Your task to perform on an android device: Add usb-a to usb-b to the cart on newegg.com, then select checkout. Image 0: 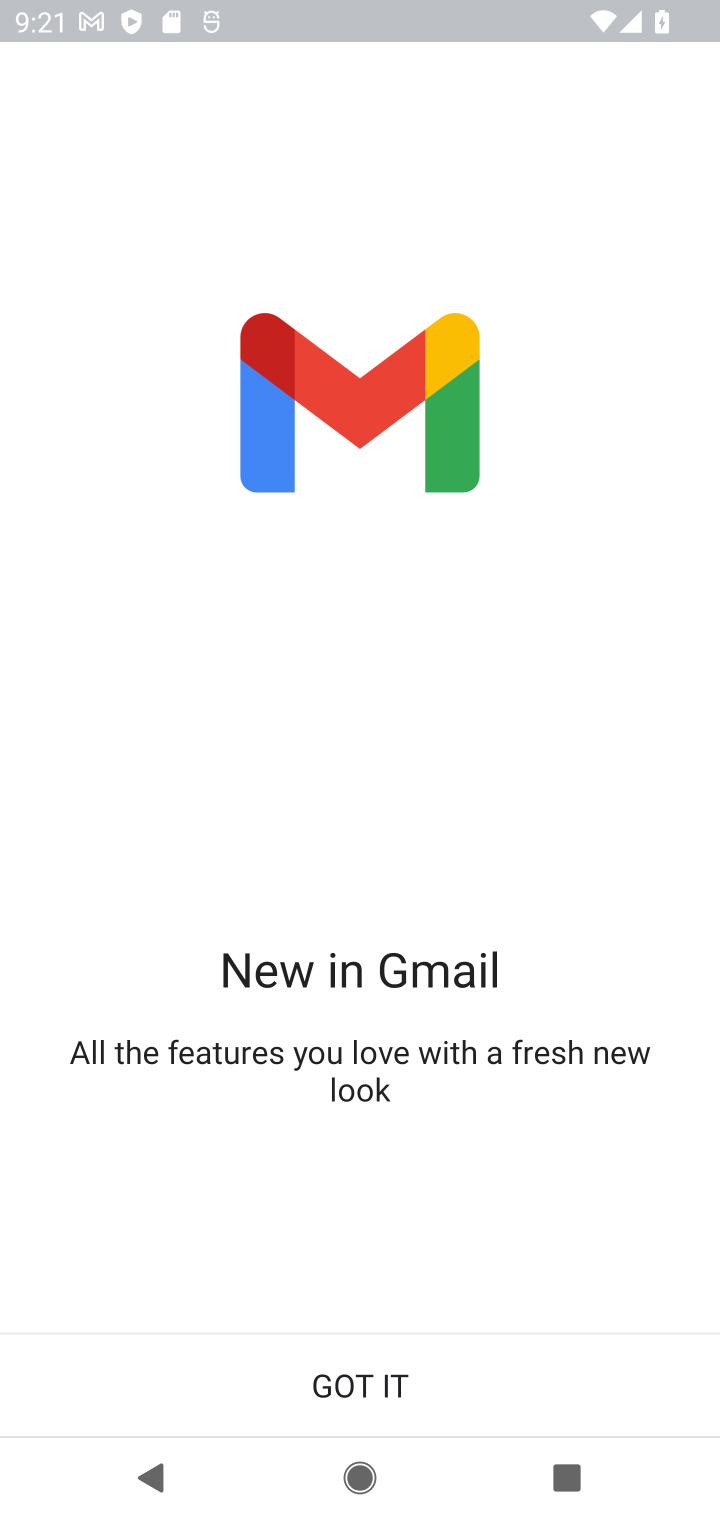
Step 0: click (356, 1412)
Your task to perform on an android device: Add usb-a to usb-b to the cart on newegg.com, then select checkout. Image 1: 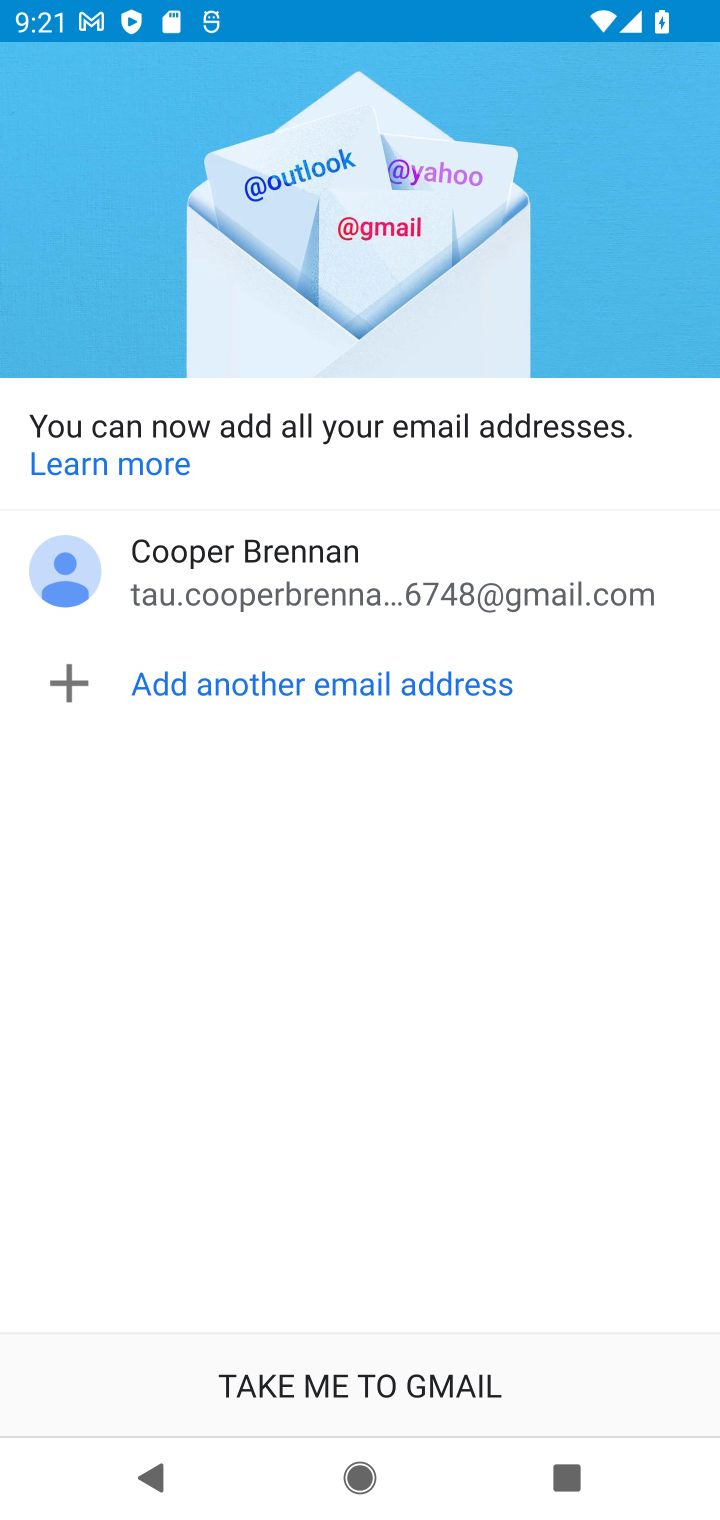
Step 1: press home button
Your task to perform on an android device: Add usb-a to usb-b to the cart on newegg.com, then select checkout. Image 2: 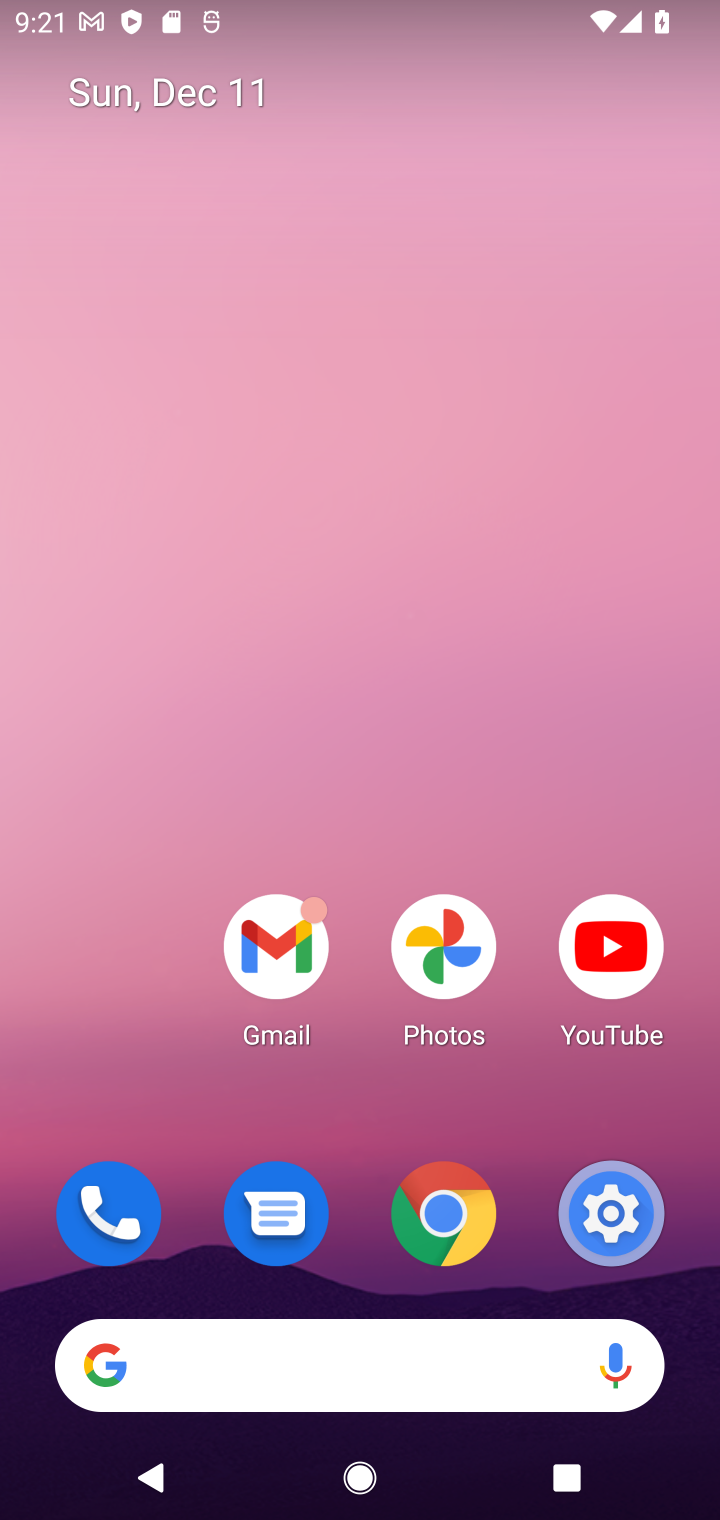
Step 2: click (423, 1365)
Your task to perform on an android device: Add usb-a to usb-b to the cart on newegg.com, then select checkout. Image 3: 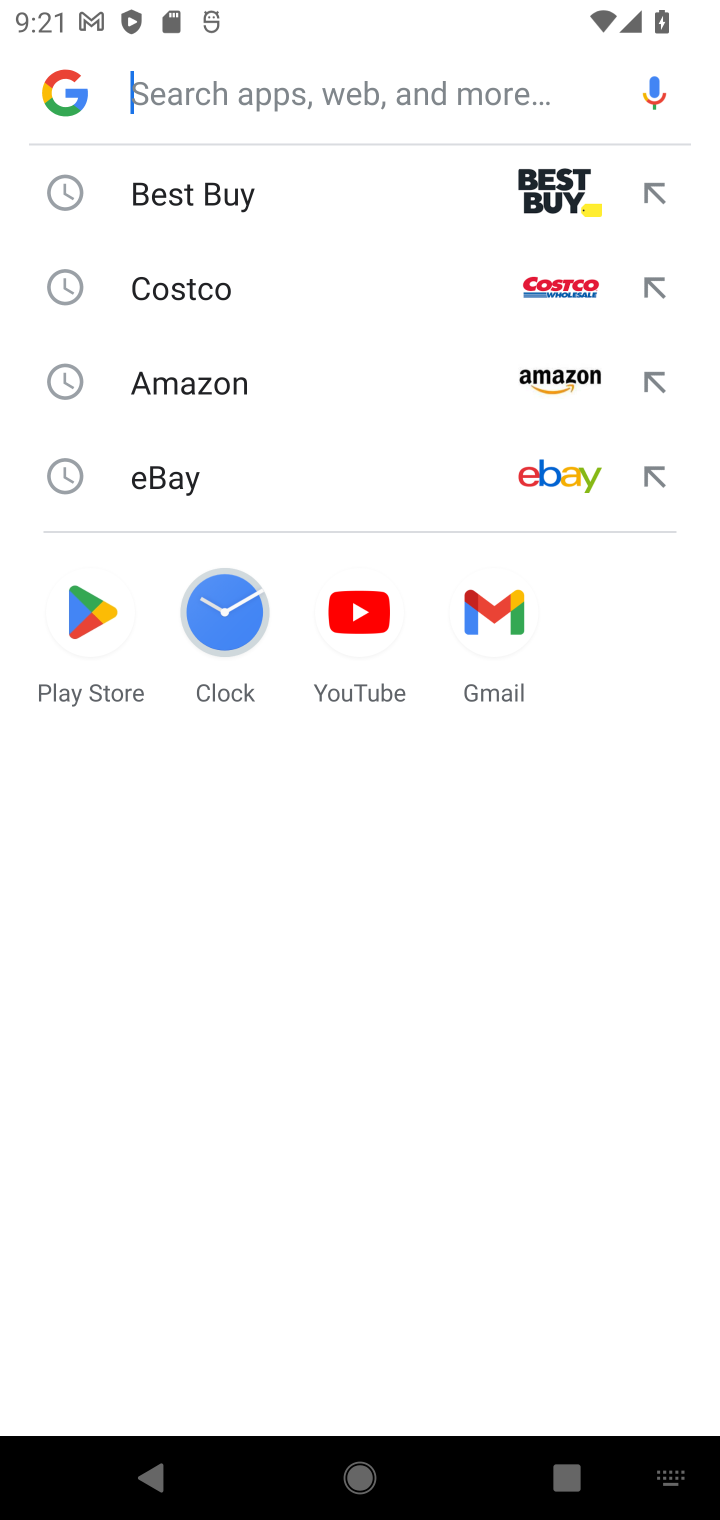
Step 3: type "newegg"
Your task to perform on an android device: Add usb-a to usb-b to the cart on newegg.com, then select checkout. Image 4: 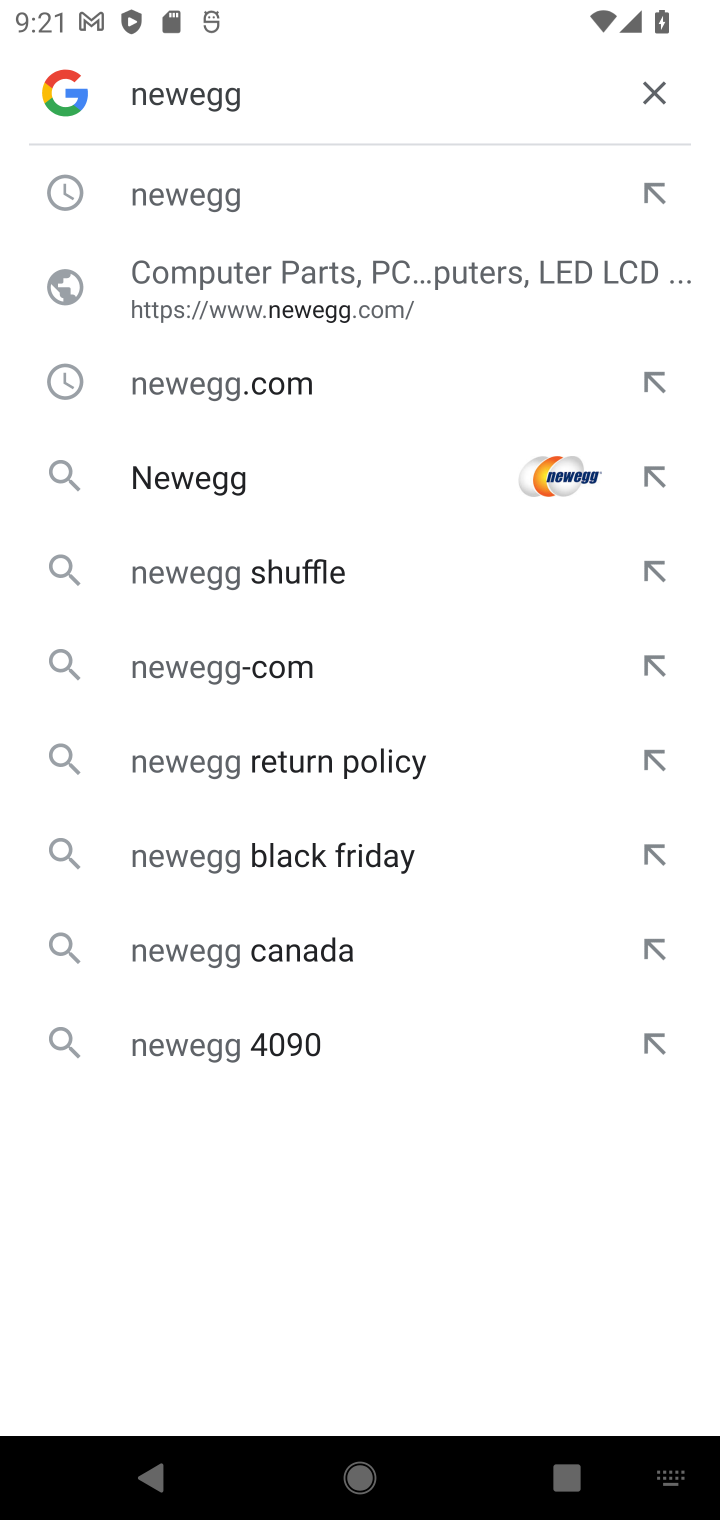
Step 4: click (318, 319)
Your task to perform on an android device: Add usb-a to usb-b to the cart on newegg.com, then select checkout. Image 5: 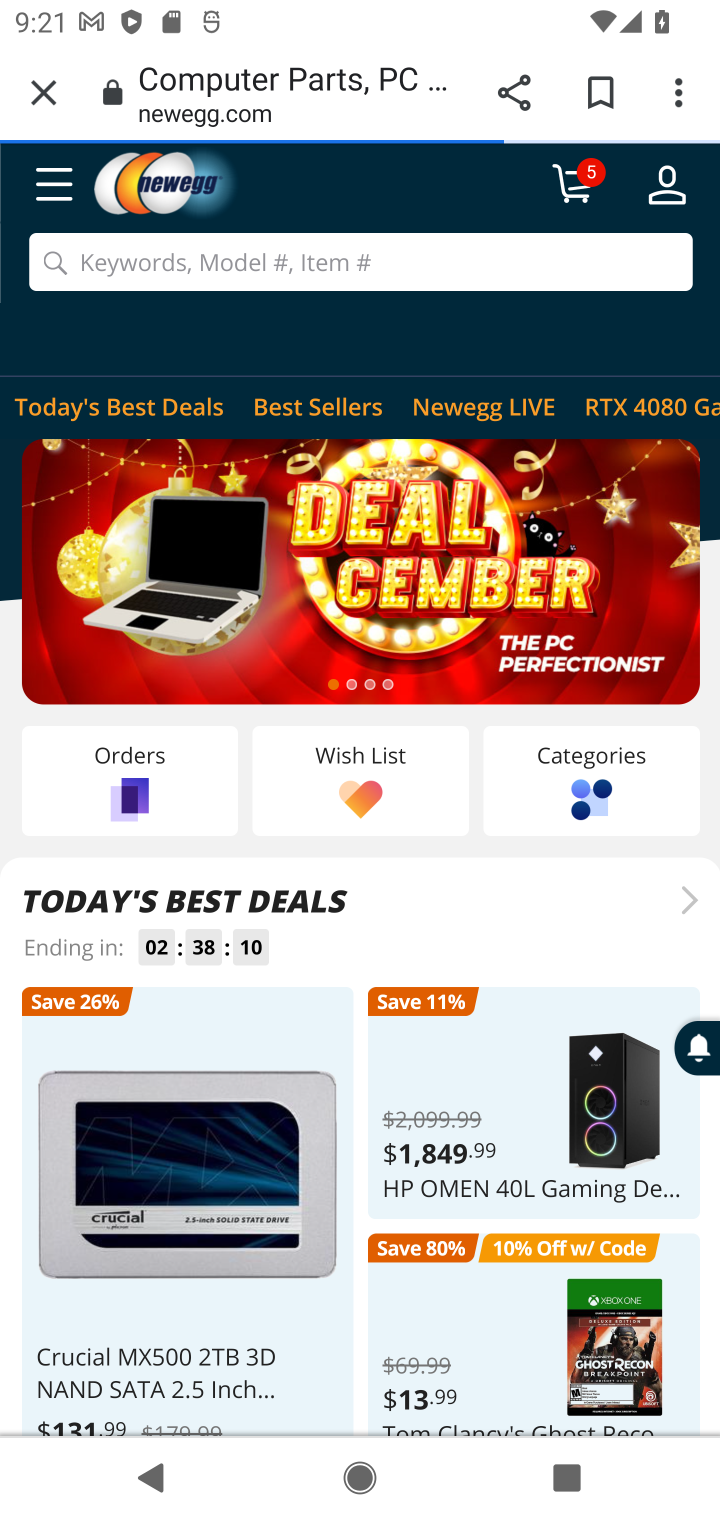
Step 5: click (311, 286)
Your task to perform on an android device: Add usb-a to usb-b to the cart on newegg.com, then select checkout. Image 6: 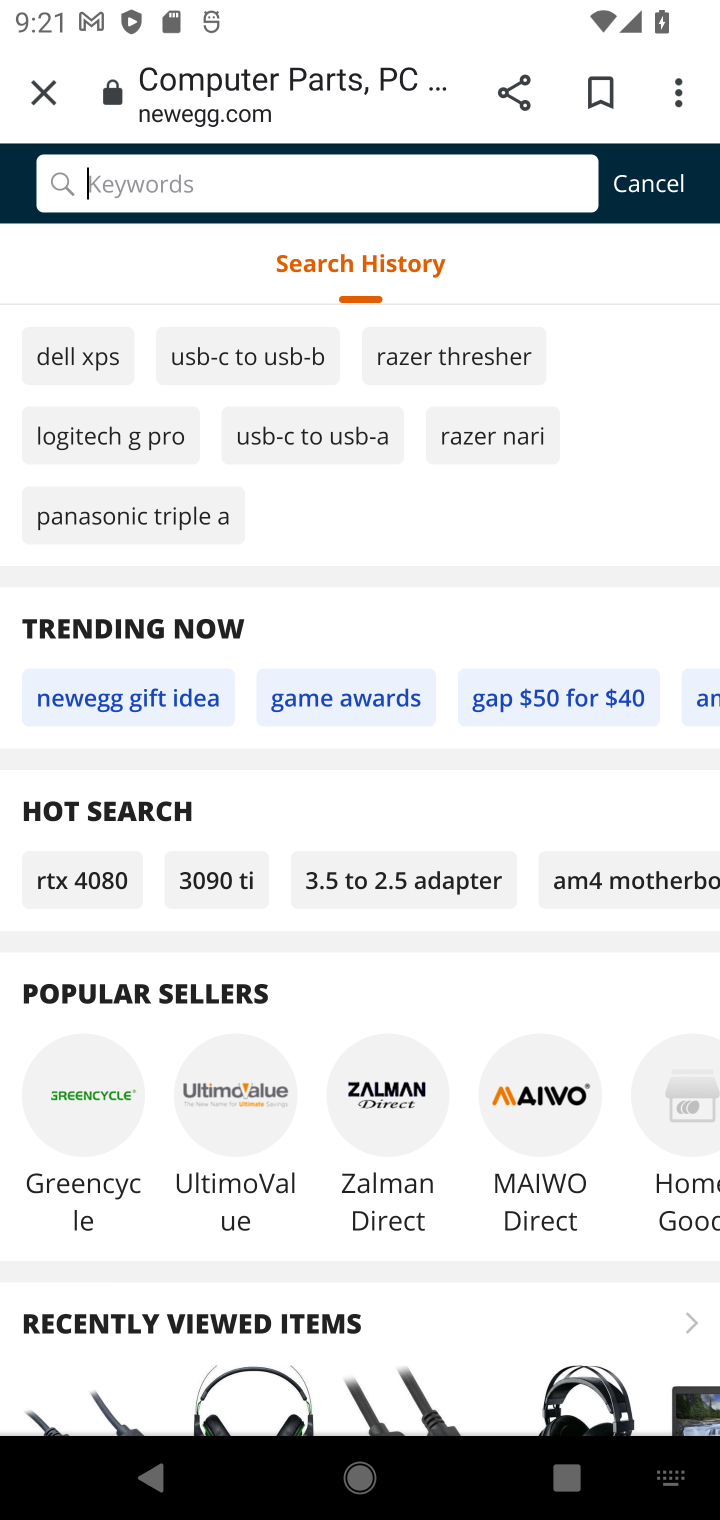
Step 6: type "usb-a to usb-b"
Your task to perform on an android device: Add usb-a to usb-b to the cart on newegg.com, then select checkout. Image 7: 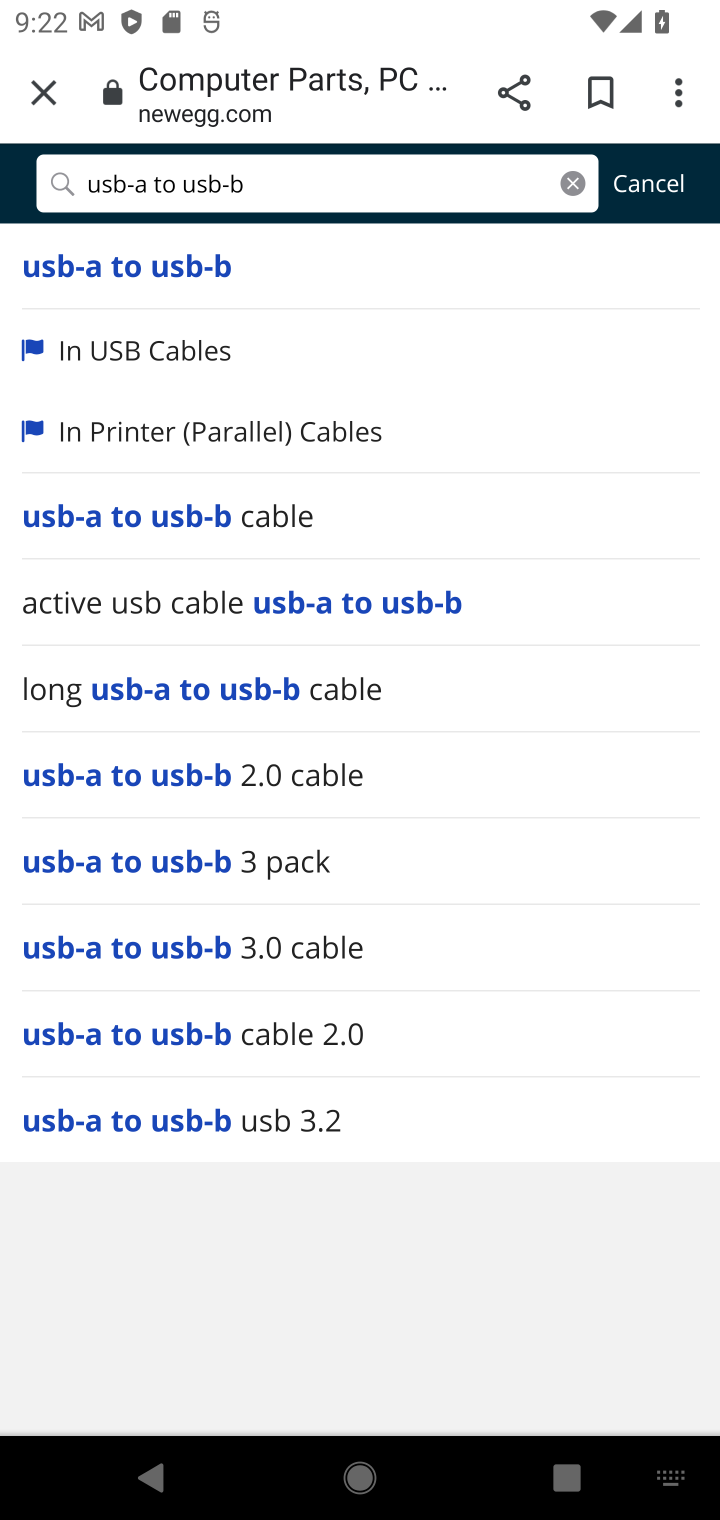
Step 7: click (94, 297)
Your task to perform on an android device: Add usb-a to usb-b to the cart on newegg.com, then select checkout. Image 8: 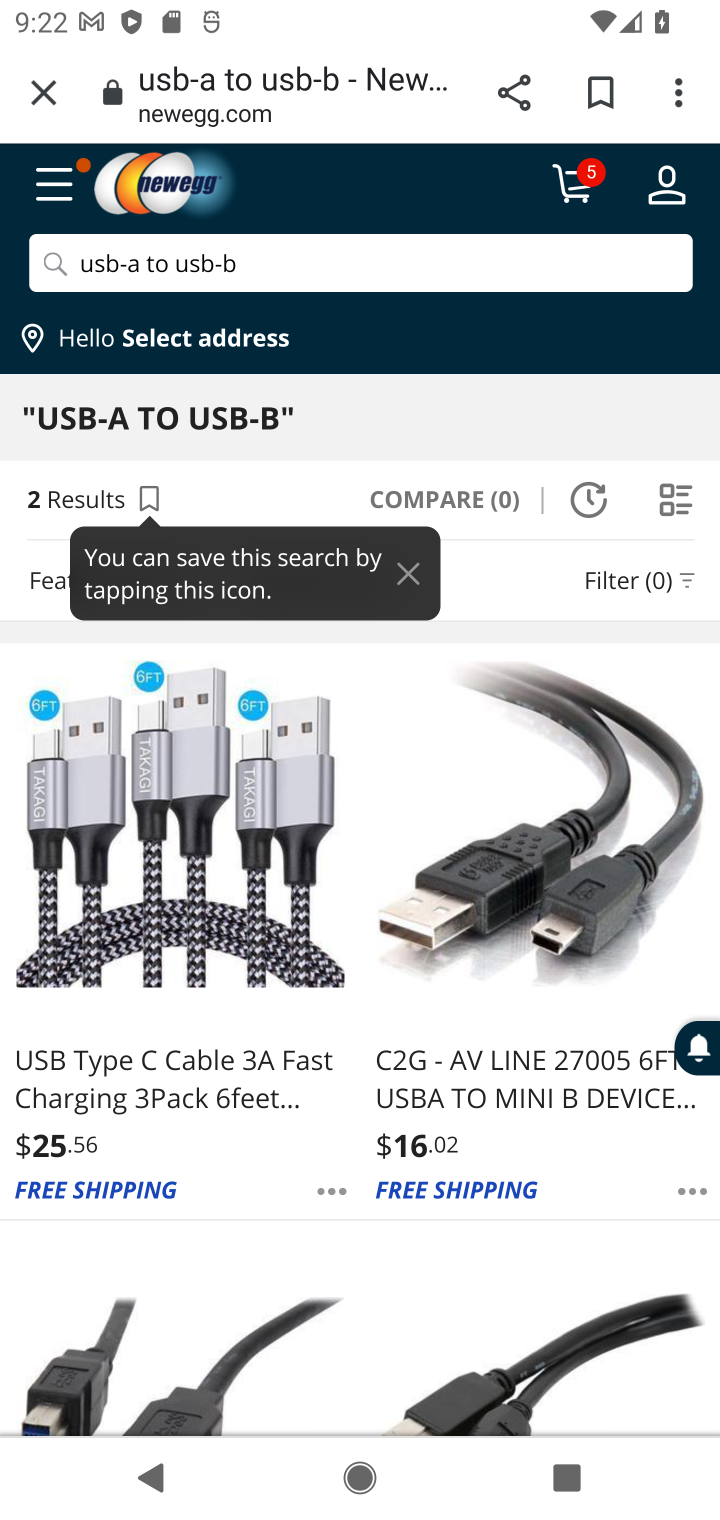
Step 8: click (152, 824)
Your task to perform on an android device: Add usb-a to usb-b to the cart on newegg.com, then select checkout. Image 9: 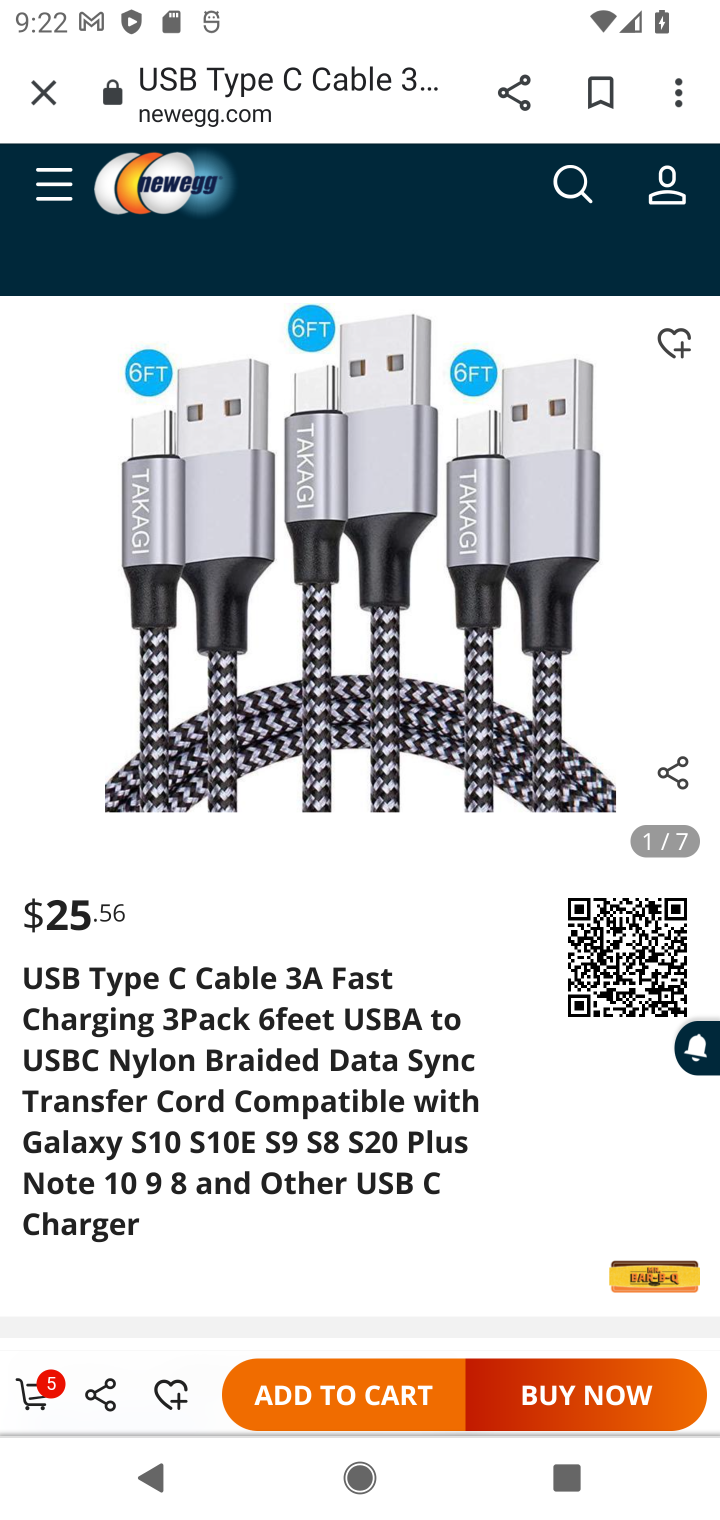
Step 9: click (378, 1387)
Your task to perform on an android device: Add usb-a to usb-b to the cart on newegg.com, then select checkout. Image 10: 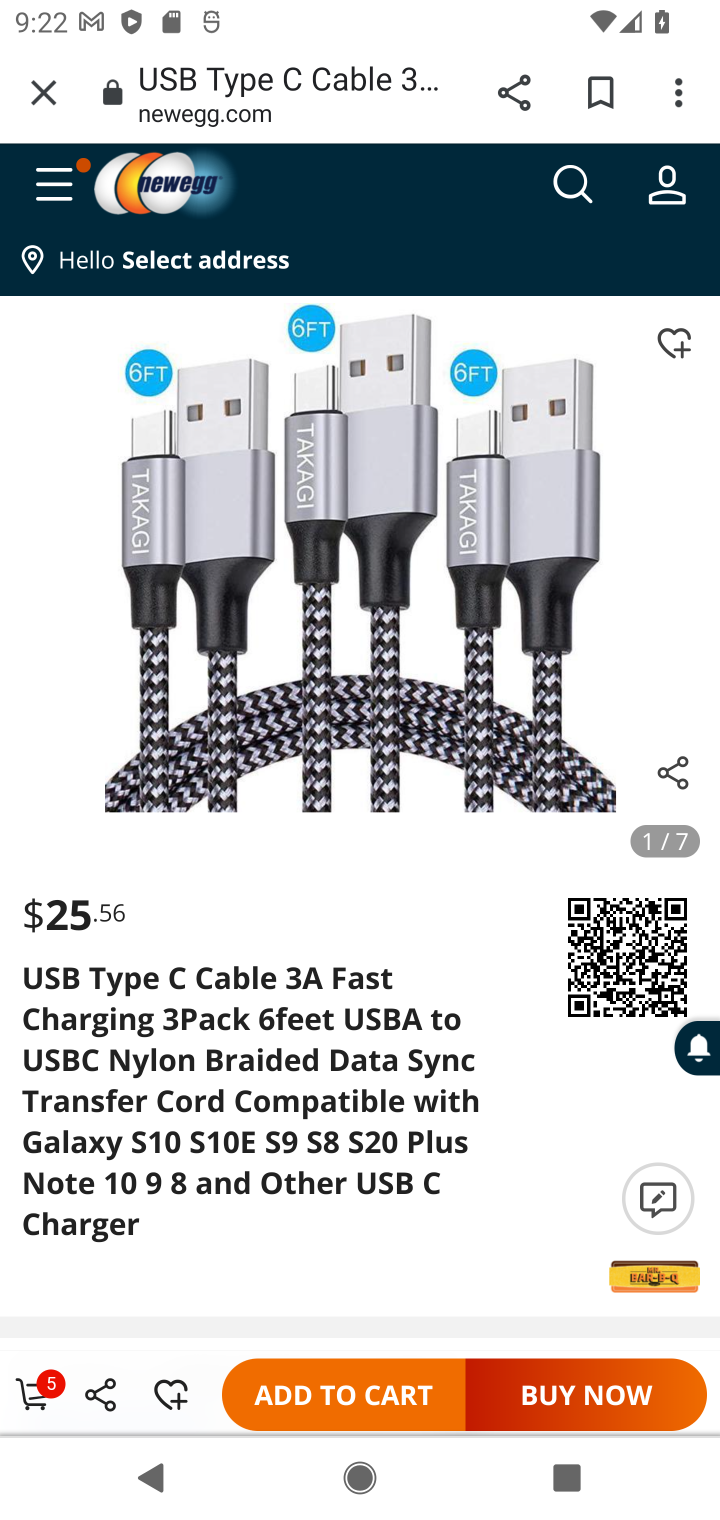
Step 10: task complete